Your task to perform on an android device: toggle sleep mode Image 0: 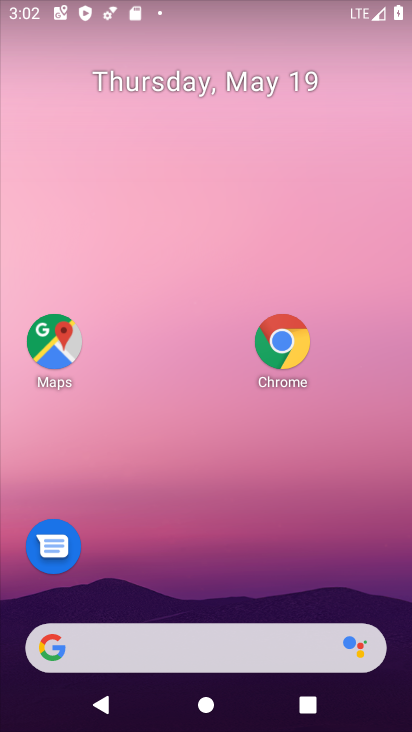
Step 0: press home button
Your task to perform on an android device: toggle sleep mode Image 1: 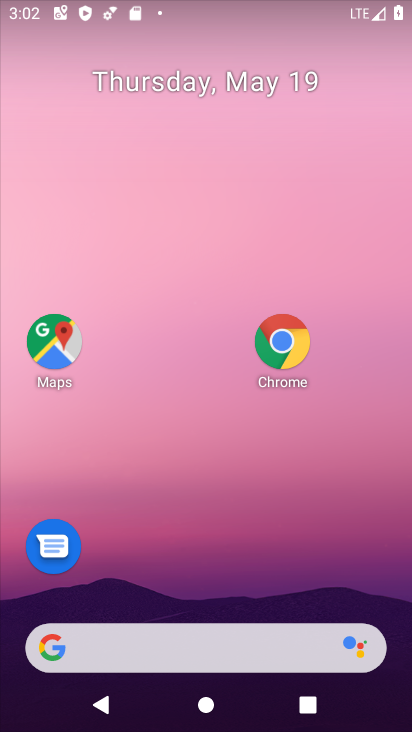
Step 1: drag from (189, 657) to (322, 174)
Your task to perform on an android device: toggle sleep mode Image 2: 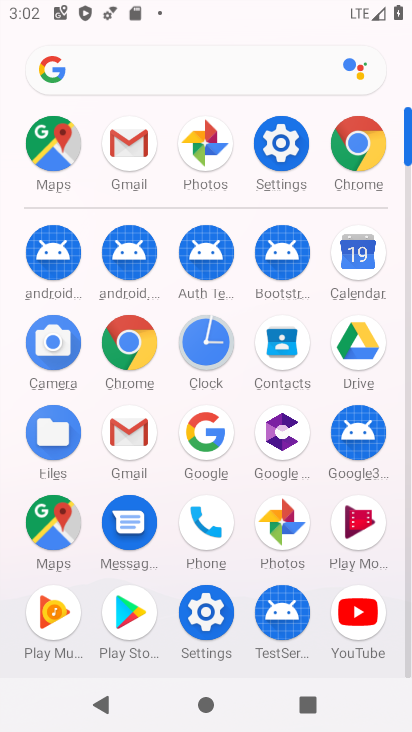
Step 2: click (281, 154)
Your task to perform on an android device: toggle sleep mode Image 3: 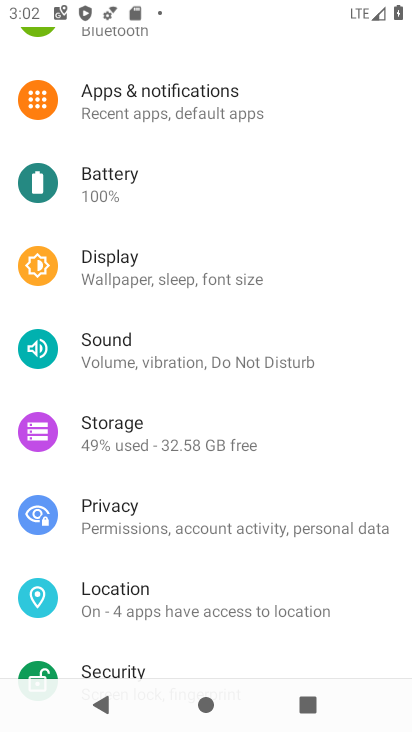
Step 3: drag from (217, 556) to (289, 557)
Your task to perform on an android device: toggle sleep mode Image 4: 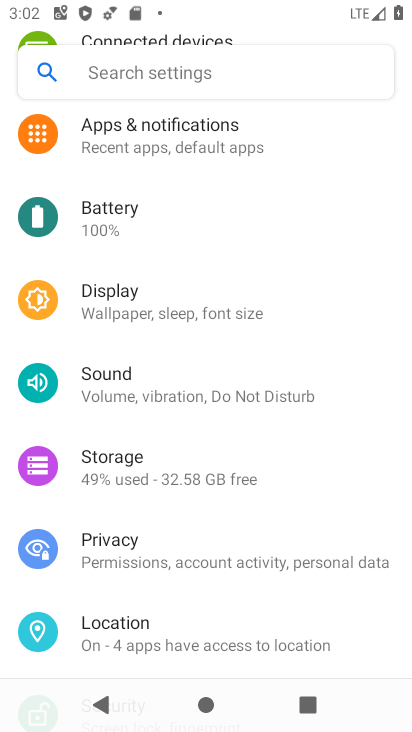
Step 4: click (155, 306)
Your task to perform on an android device: toggle sleep mode Image 5: 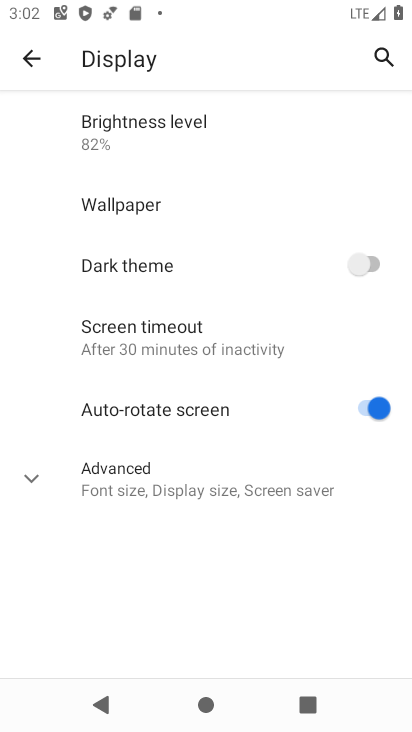
Step 5: task complete